Your task to perform on an android device: turn off location history Image 0: 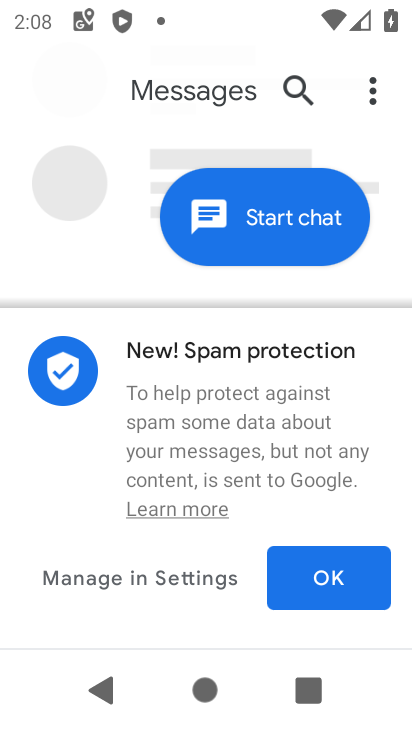
Step 0: press home button
Your task to perform on an android device: turn off location history Image 1: 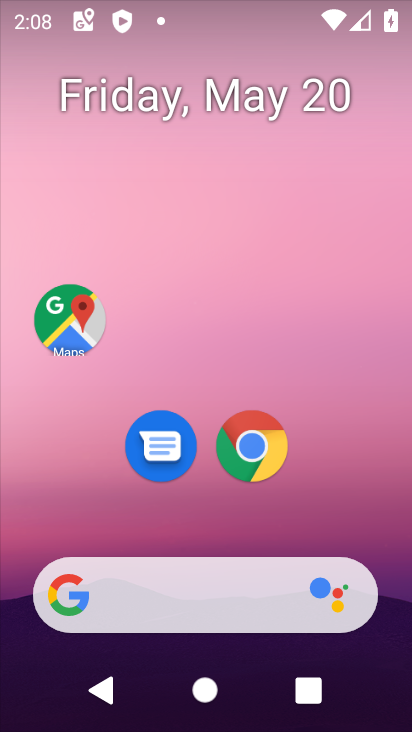
Step 1: click (71, 322)
Your task to perform on an android device: turn off location history Image 2: 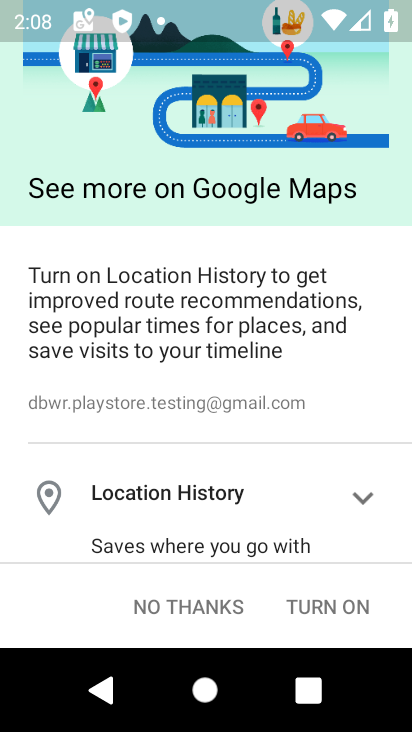
Step 2: click (146, 598)
Your task to perform on an android device: turn off location history Image 3: 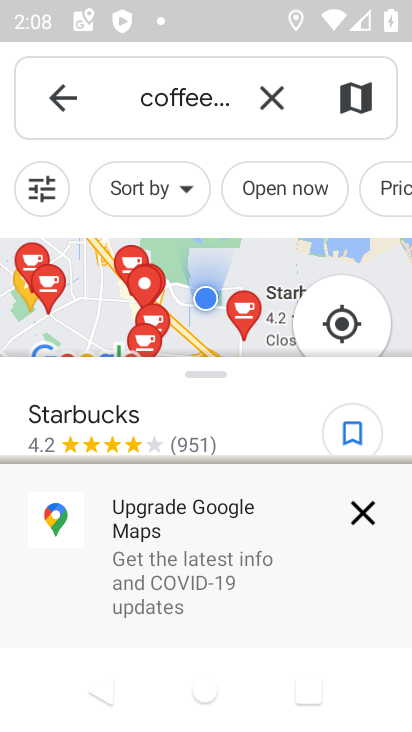
Step 3: click (278, 91)
Your task to perform on an android device: turn off location history Image 4: 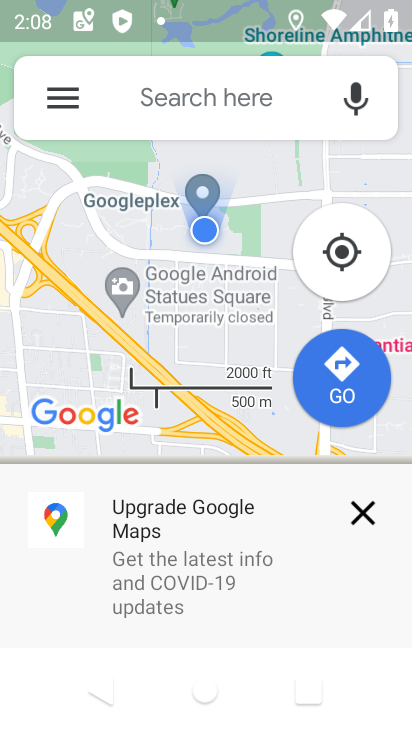
Step 4: click (67, 102)
Your task to perform on an android device: turn off location history Image 5: 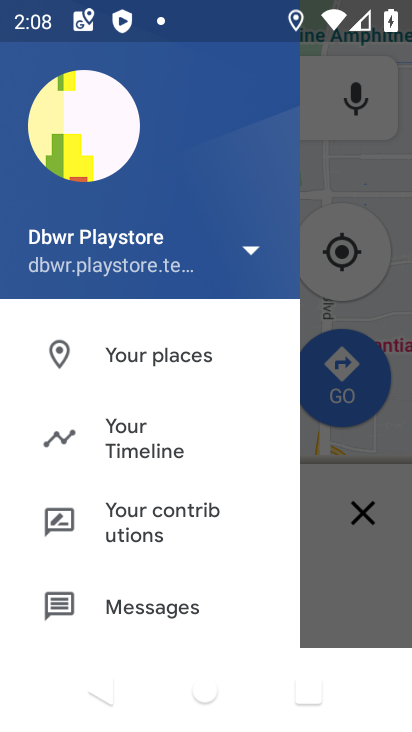
Step 5: click (140, 439)
Your task to perform on an android device: turn off location history Image 6: 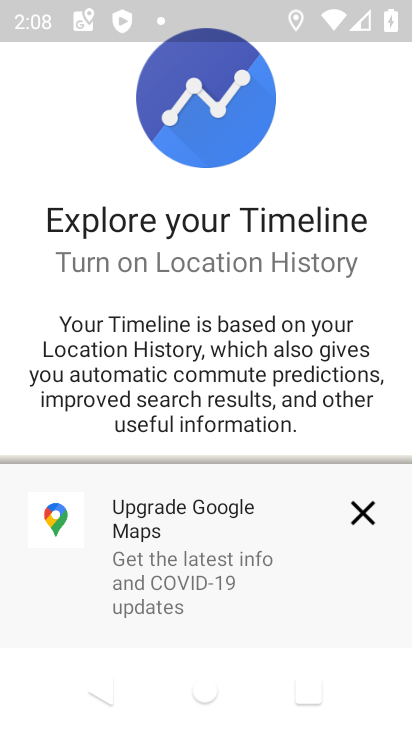
Step 6: click (359, 515)
Your task to perform on an android device: turn off location history Image 7: 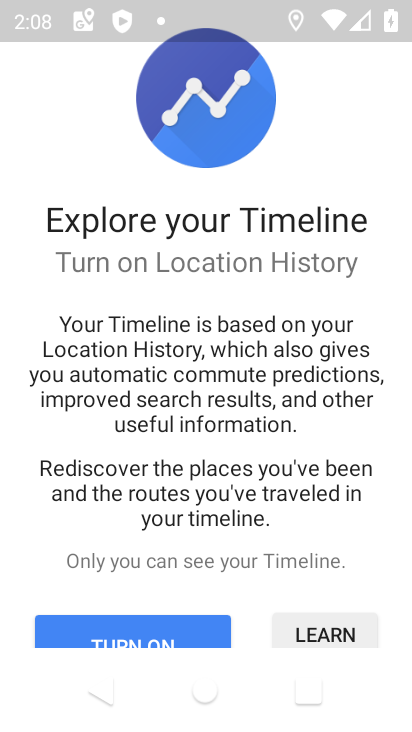
Step 7: drag from (235, 548) to (226, 245)
Your task to perform on an android device: turn off location history Image 8: 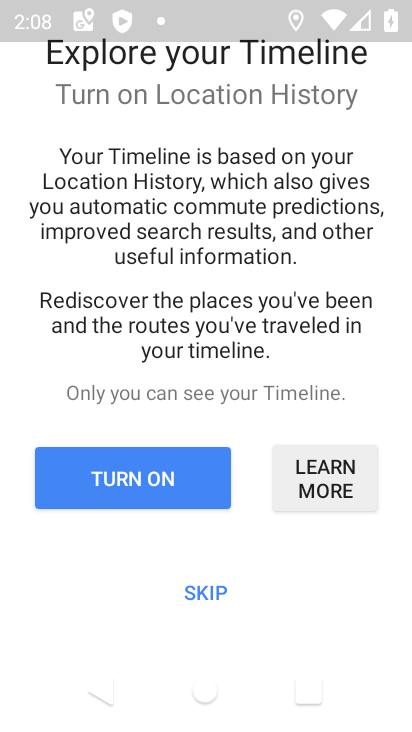
Step 8: click (193, 595)
Your task to perform on an android device: turn off location history Image 9: 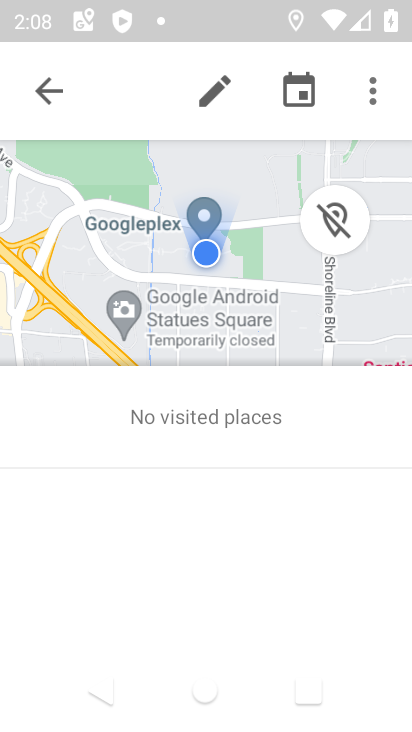
Step 9: click (369, 91)
Your task to perform on an android device: turn off location history Image 10: 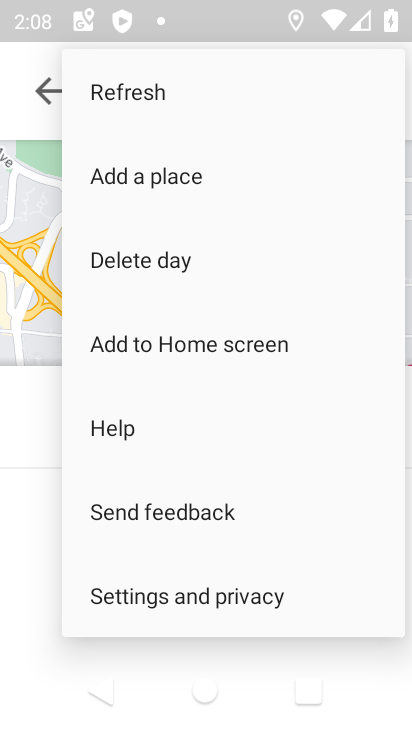
Step 10: click (126, 591)
Your task to perform on an android device: turn off location history Image 11: 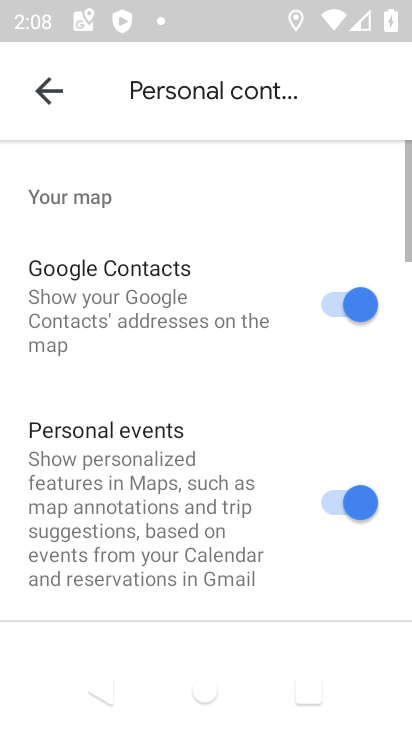
Step 11: drag from (149, 568) to (169, 124)
Your task to perform on an android device: turn off location history Image 12: 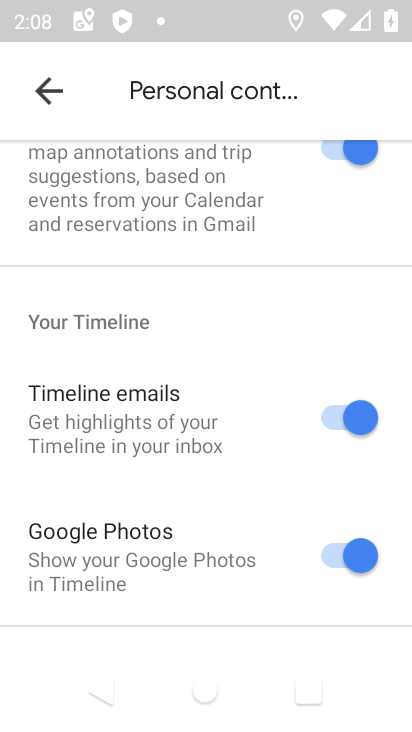
Step 12: drag from (169, 530) to (170, 186)
Your task to perform on an android device: turn off location history Image 13: 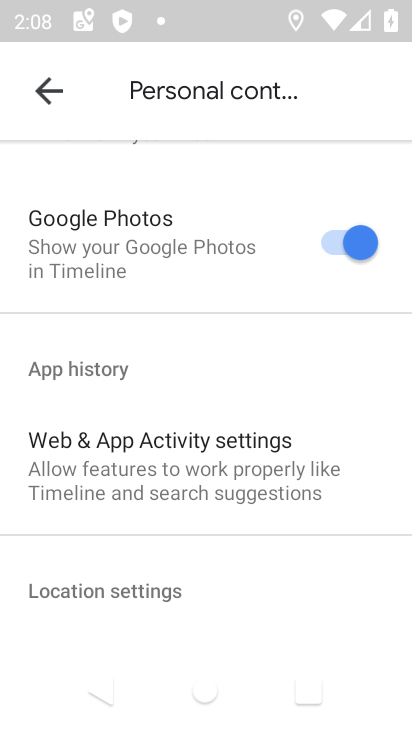
Step 13: drag from (176, 472) to (149, 209)
Your task to perform on an android device: turn off location history Image 14: 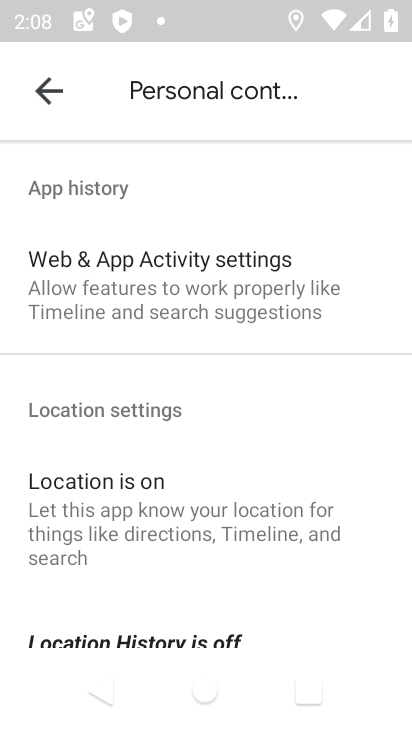
Step 14: drag from (138, 506) to (132, 268)
Your task to perform on an android device: turn off location history Image 15: 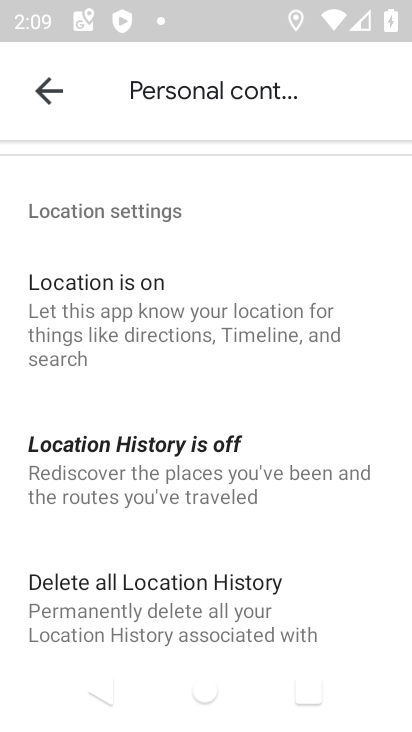
Step 15: click (127, 481)
Your task to perform on an android device: turn off location history Image 16: 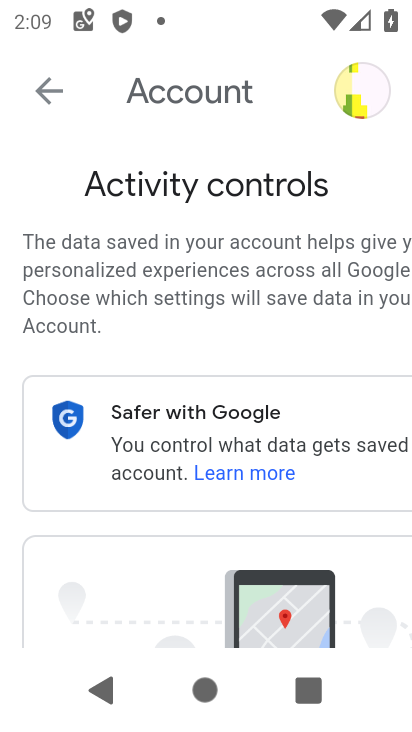
Step 16: drag from (174, 532) to (159, 171)
Your task to perform on an android device: turn off location history Image 17: 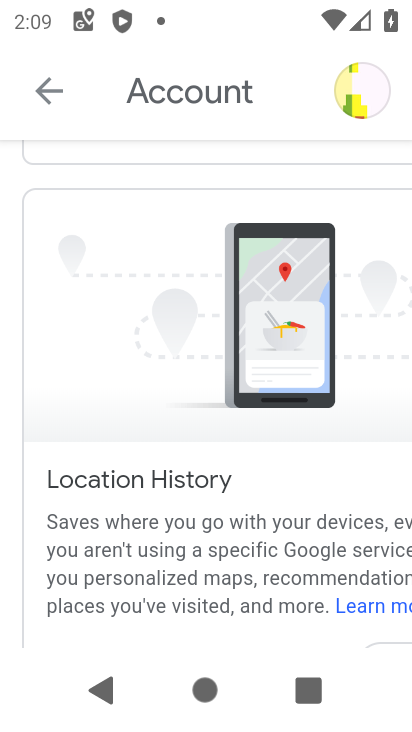
Step 17: drag from (189, 493) to (153, 110)
Your task to perform on an android device: turn off location history Image 18: 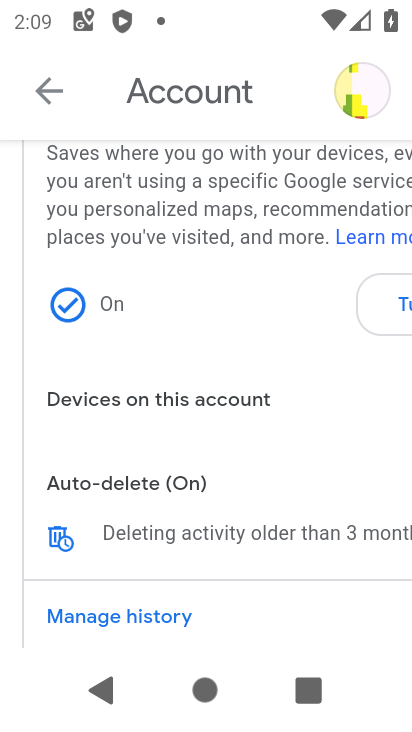
Step 18: click (399, 306)
Your task to perform on an android device: turn off location history Image 19: 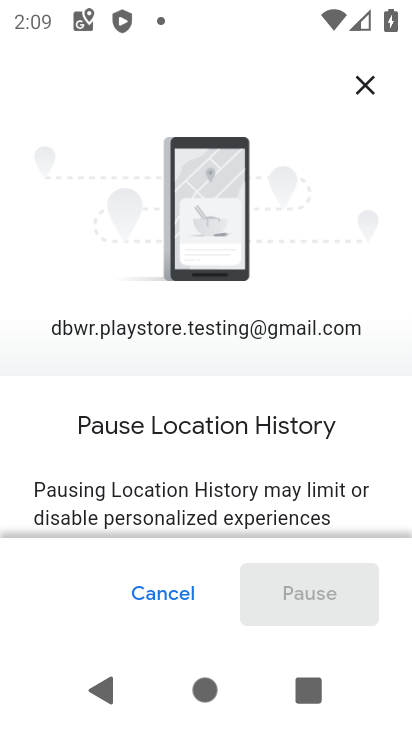
Step 19: drag from (201, 482) to (174, 128)
Your task to perform on an android device: turn off location history Image 20: 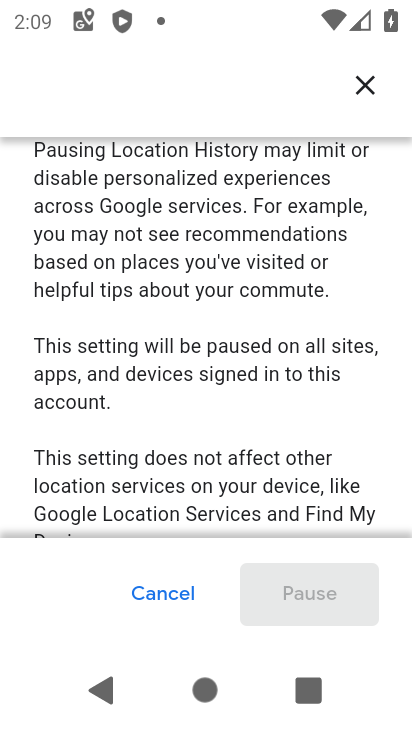
Step 20: drag from (189, 459) to (167, 128)
Your task to perform on an android device: turn off location history Image 21: 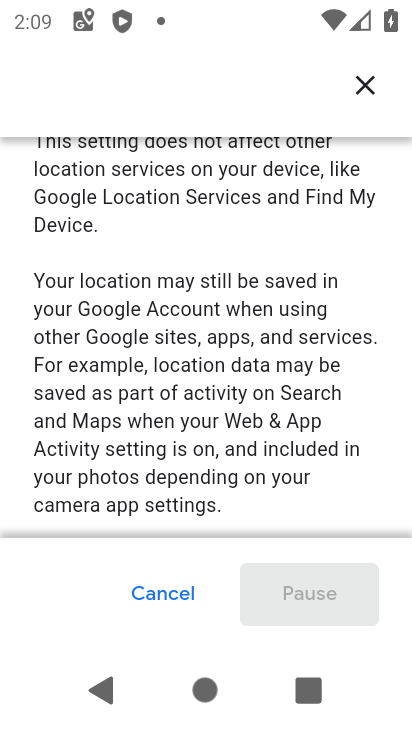
Step 21: drag from (221, 430) to (201, 105)
Your task to perform on an android device: turn off location history Image 22: 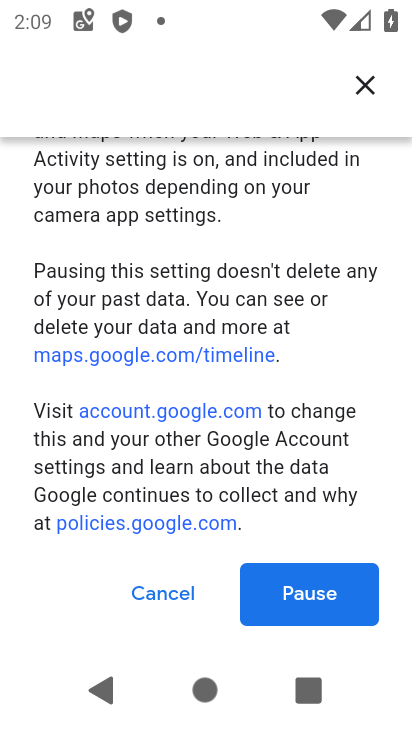
Step 22: drag from (207, 448) to (187, 181)
Your task to perform on an android device: turn off location history Image 23: 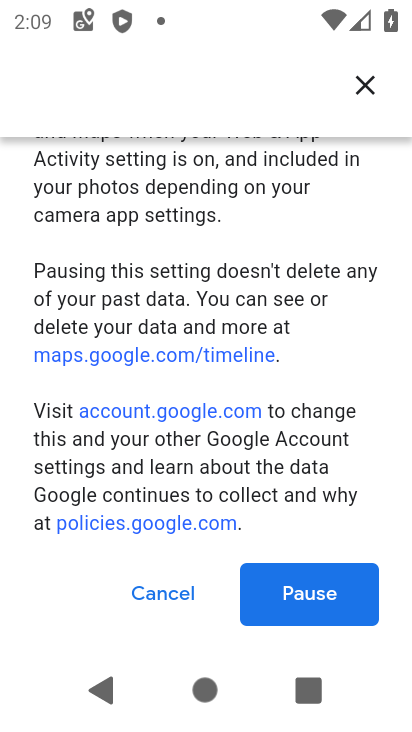
Step 23: click (314, 599)
Your task to perform on an android device: turn off location history Image 24: 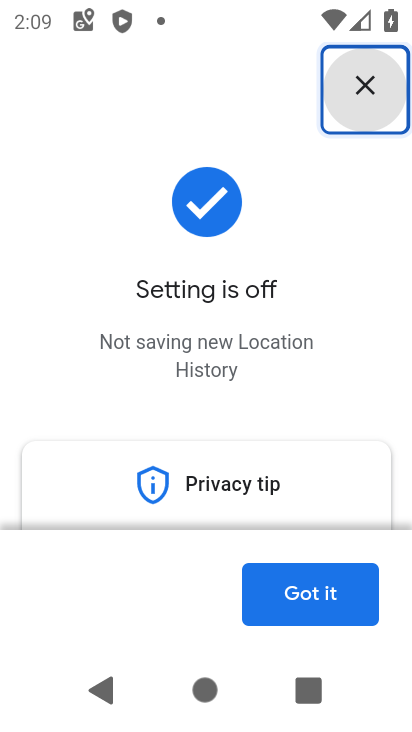
Step 24: click (314, 600)
Your task to perform on an android device: turn off location history Image 25: 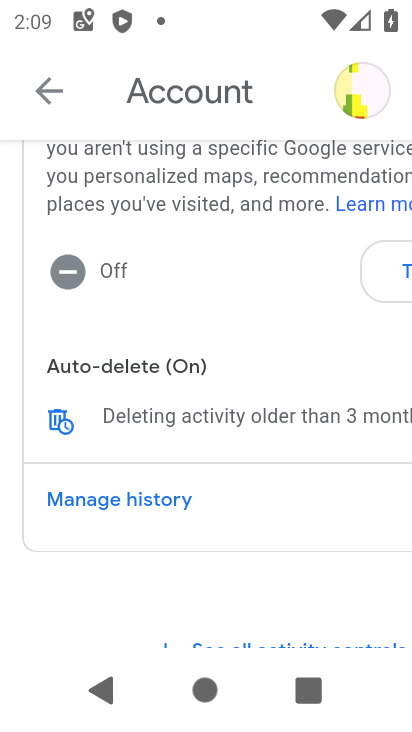
Step 25: task complete